Your task to perform on an android device: Search for Mexican restaurants on Maps Image 0: 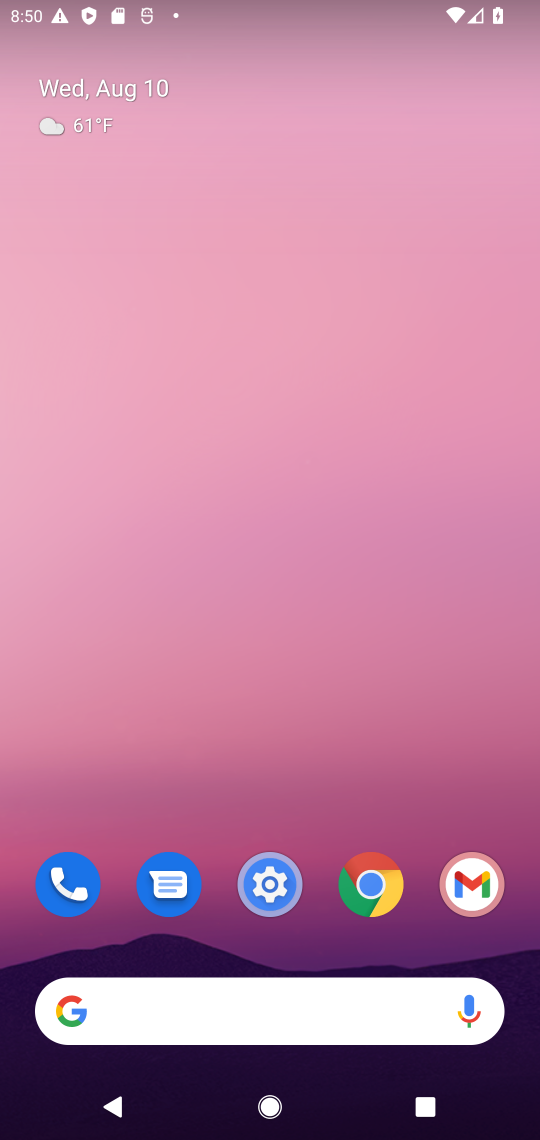
Step 0: drag from (72, 1110) to (230, 460)
Your task to perform on an android device: Search for Mexican restaurants on Maps Image 1: 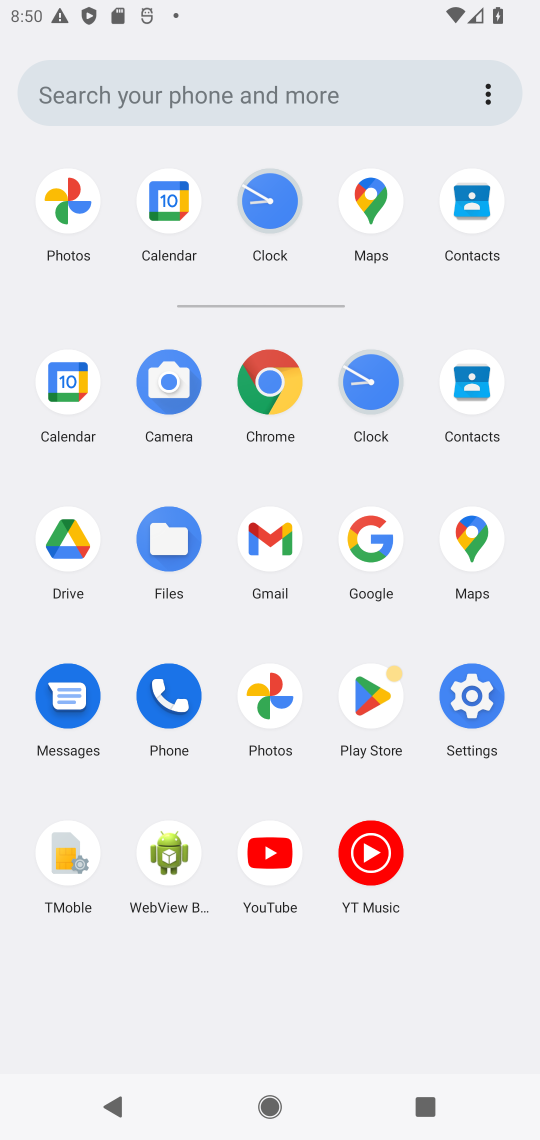
Step 1: click (483, 545)
Your task to perform on an android device: Search for Mexican restaurants on Maps Image 2: 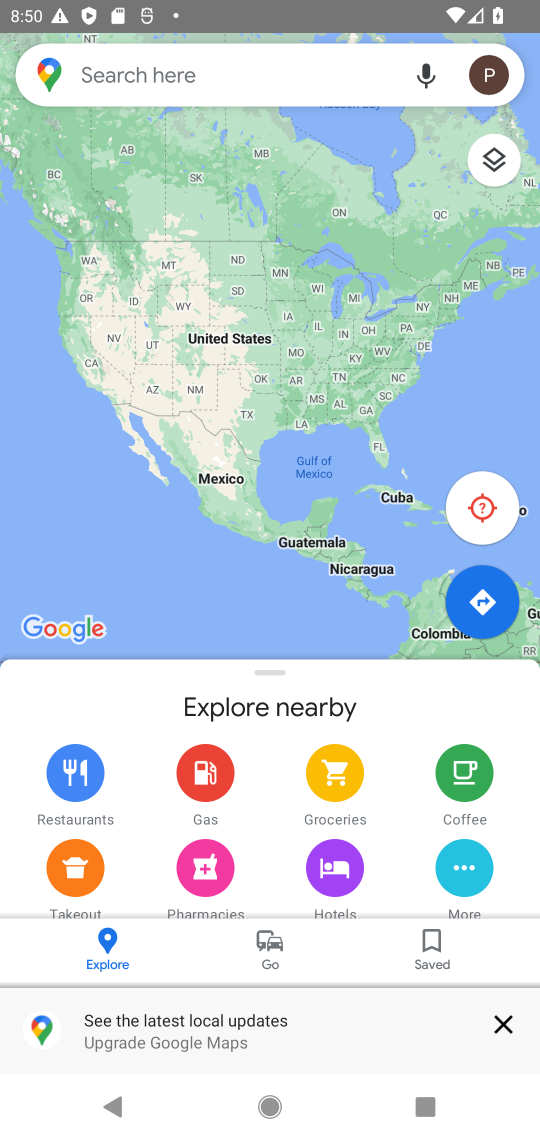
Step 2: click (103, 49)
Your task to perform on an android device: Search for Mexican restaurants on Maps Image 3: 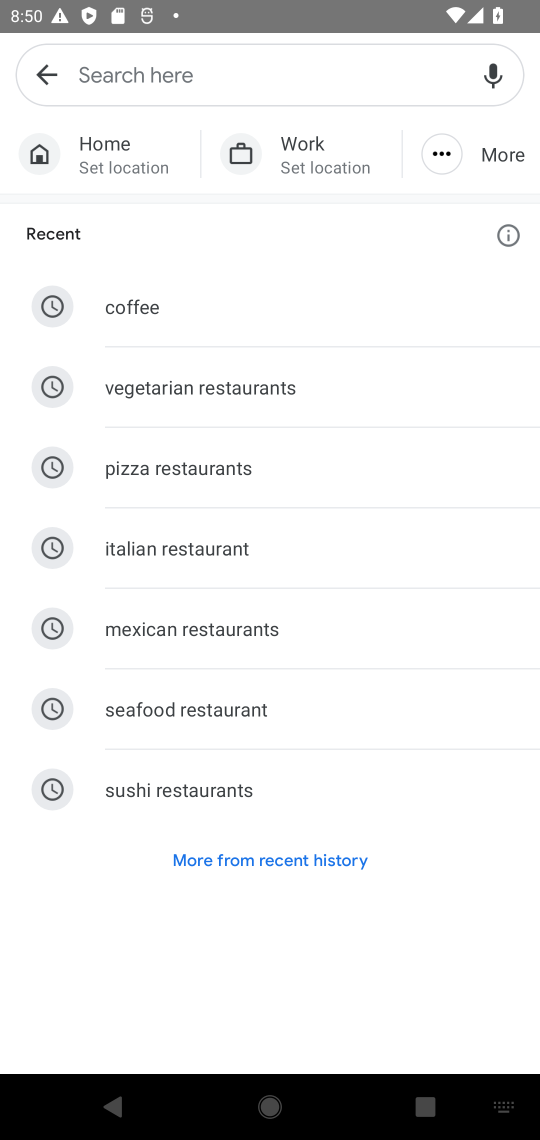
Step 3: type "Mexican restaurants"
Your task to perform on an android device: Search for Mexican restaurants on Maps Image 4: 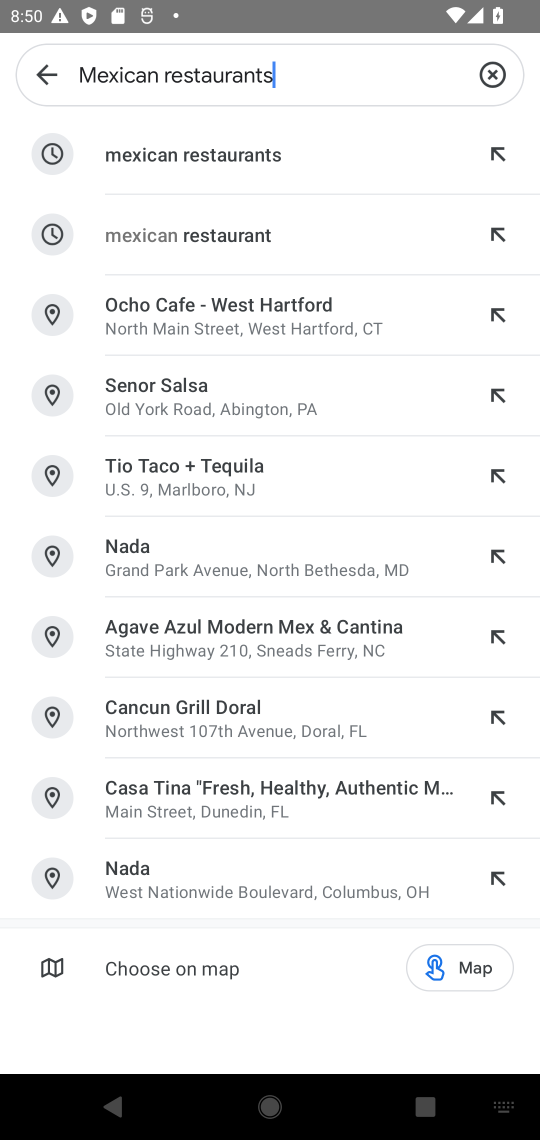
Step 4: click (240, 153)
Your task to perform on an android device: Search for Mexican restaurants on Maps Image 5: 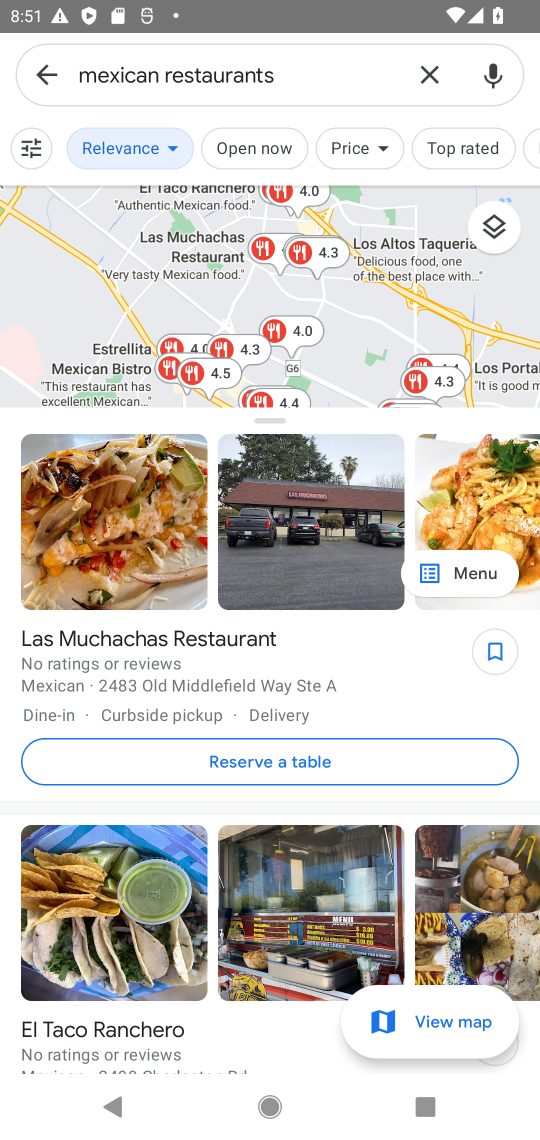
Step 5: task complete